Your task to perform on an android device: Install the Yahoo app Image 0: 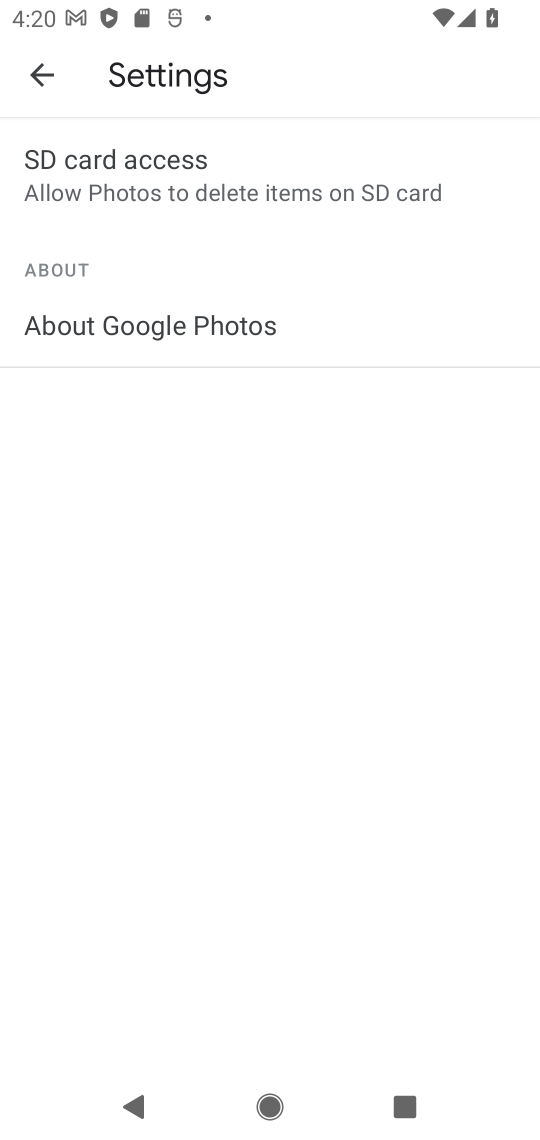
Step 0: press home button
Your task to perform on an android device: Install the Yahoo app Image 1: 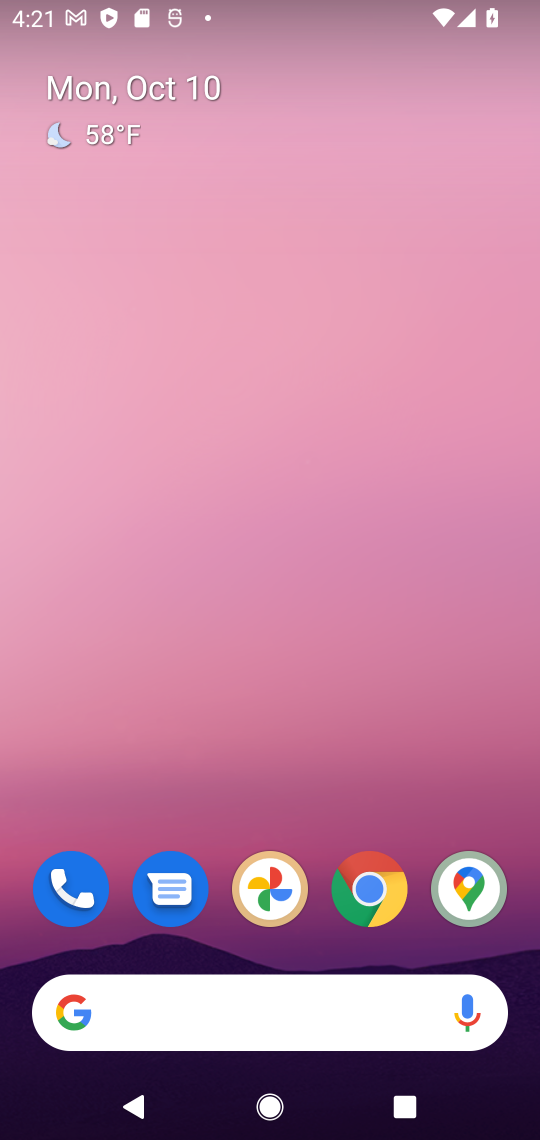
Step 1: click (370, 889)
Your task to perform on an android device: Install the Yahoo app Image 2: 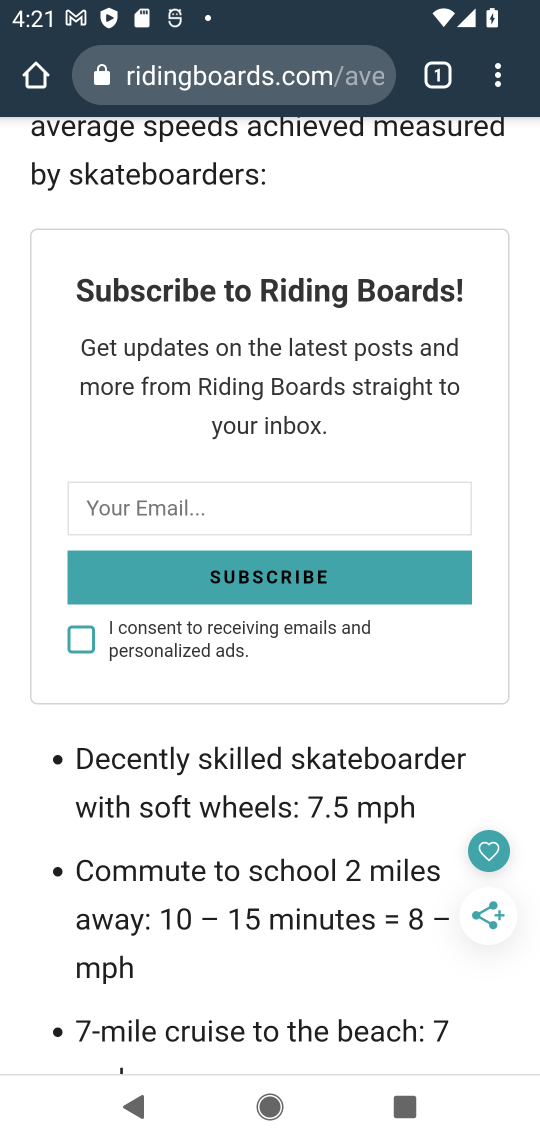
Step 2: click (289, 56)
Your task to perform on an android device: Install the Yahoo app Image 3: 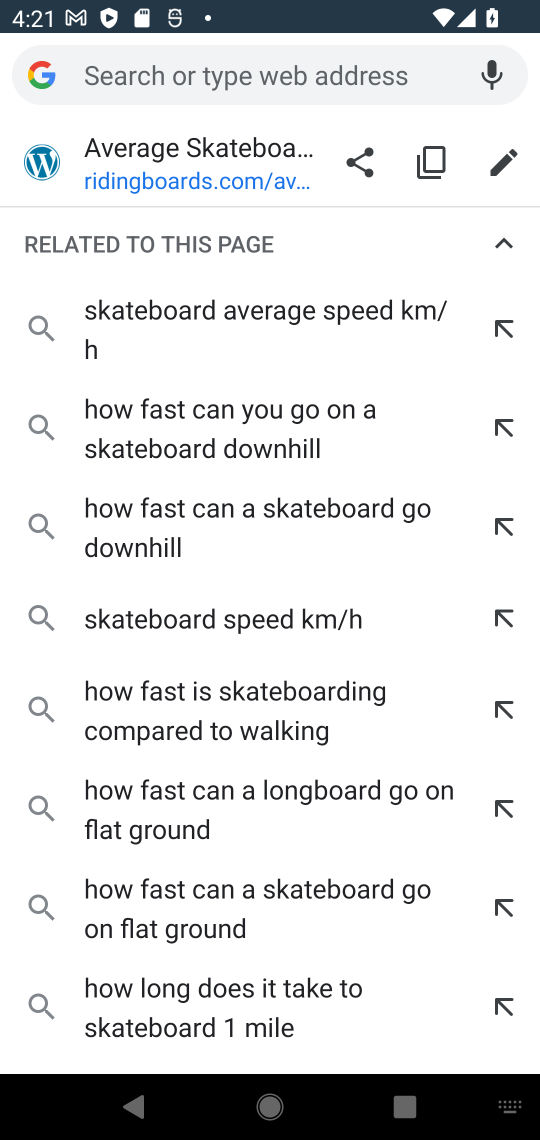
Step 3: type "Install the Yahoo app"
Your task to perform on an android device: Install the Yahoo app Image 4: 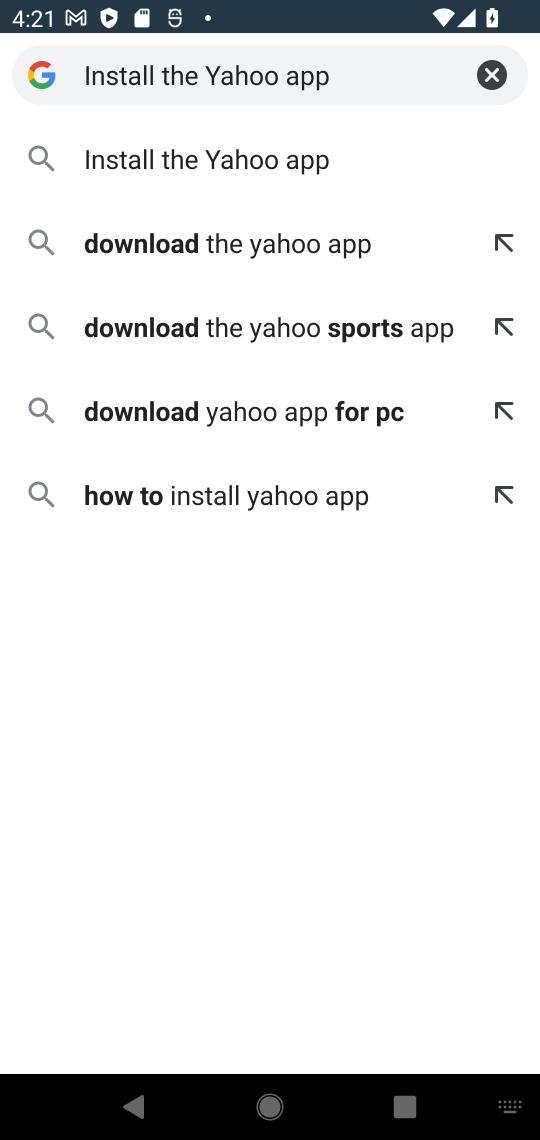
Step 4: click (203, 162)
Your task to perform on an android device: Install the Yahoo app Image 5: 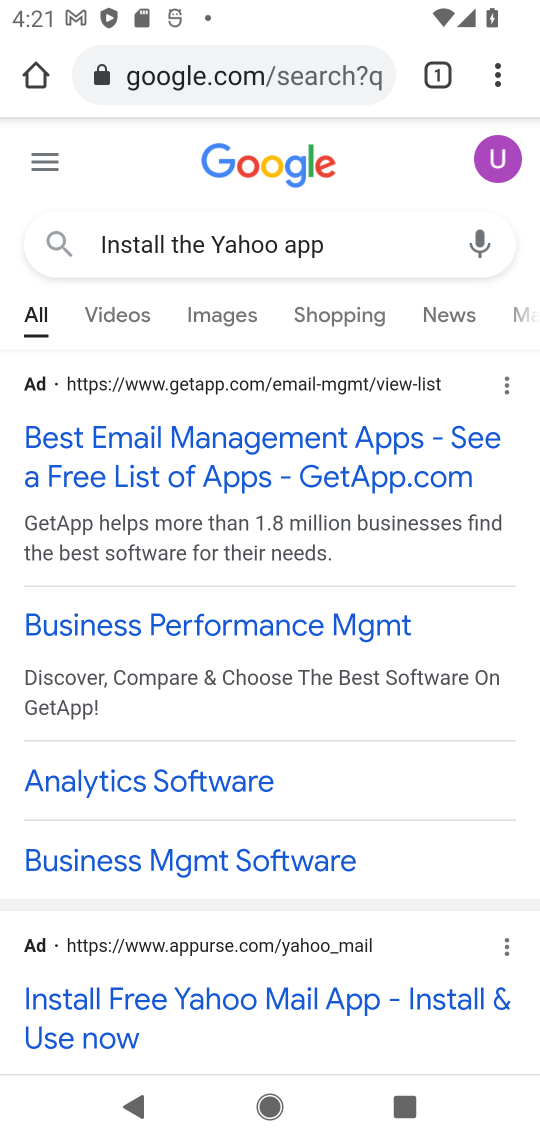
Step 5: drag from (308, 980) to (287, 507)
Your task to perform on an android device: Install the Yahoo app Image 6: 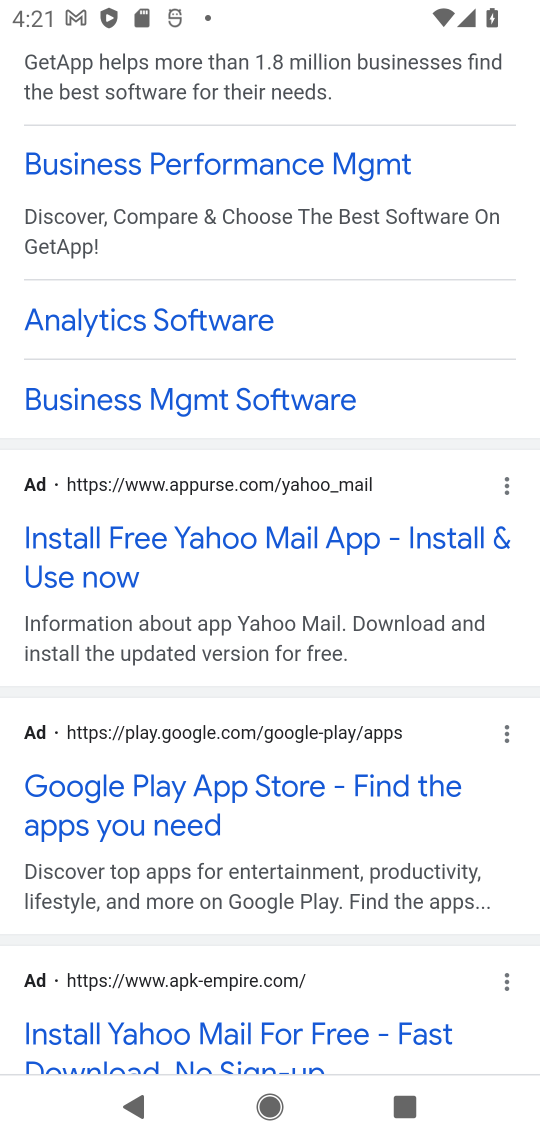
Step 6: drag from (259, 916) to (234, 171)
Your task to perform on an android device: Install the Yahoo app Image 7: 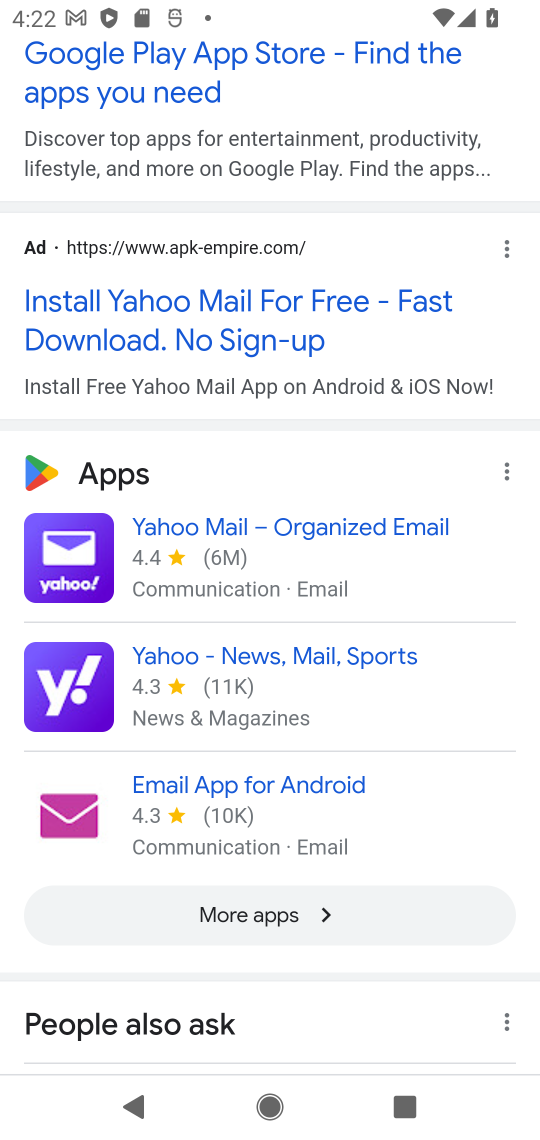
Step 7: click (155, 523)
Your task to perform on an android device: Install the Yahoo app Image 8: 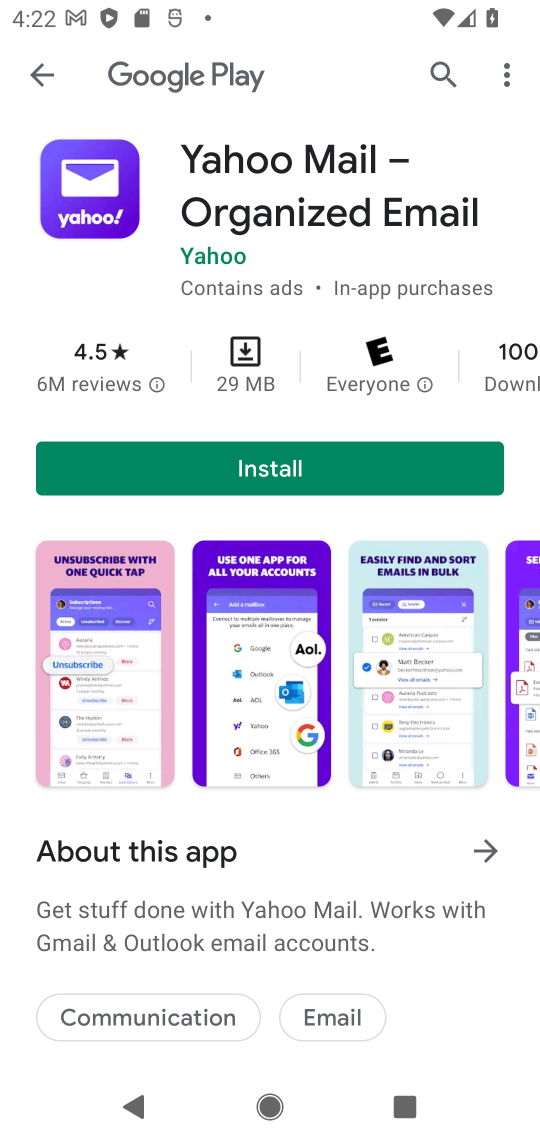
Step 8: click (264, 470)
Your task to perform on an android device: Install the Yahoo app Image 9: 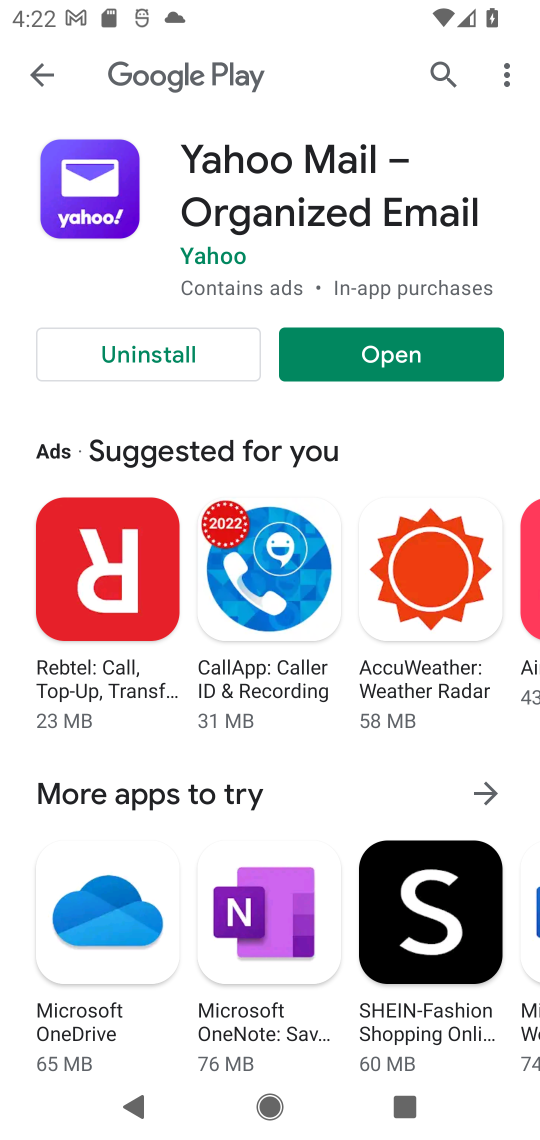
Step 9: task complete